Your task to perform on an android device: delete location history Image 0: 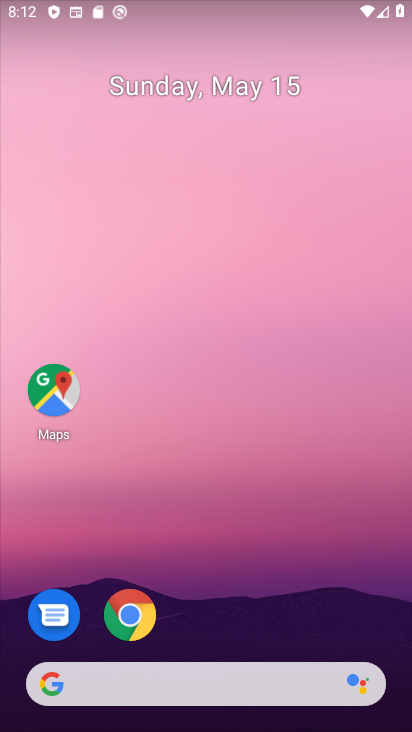
Step 0: click (129, 612)
Your task to perform on an android device: delete location history Image 1: 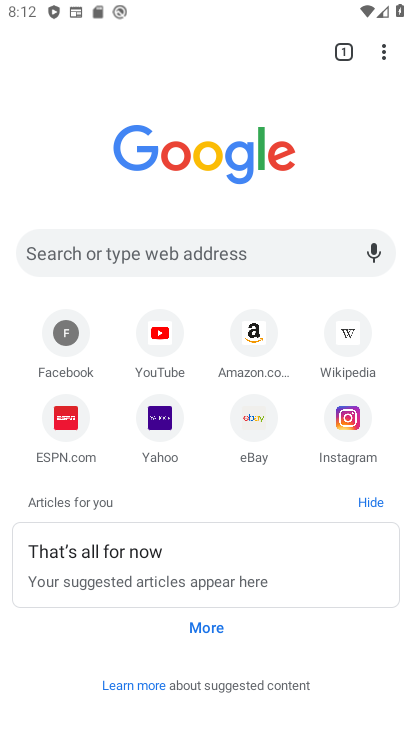
Step 1: press home button
Your task to perform on an android device: delete location history Image 2: 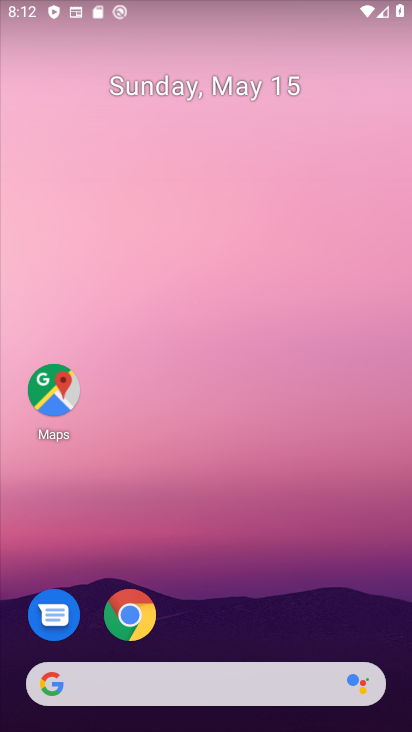
Step 2: drag from (160, 668) to (112, 349)
Your task to perform on an android device: delete location history Image 3: 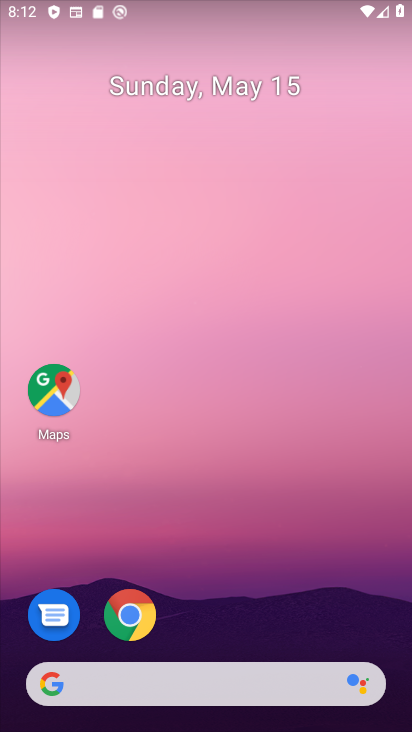
Step 3: drag from (236, 615) to (236, 228)
Your task to perform on an android device: delete location history Image 4: 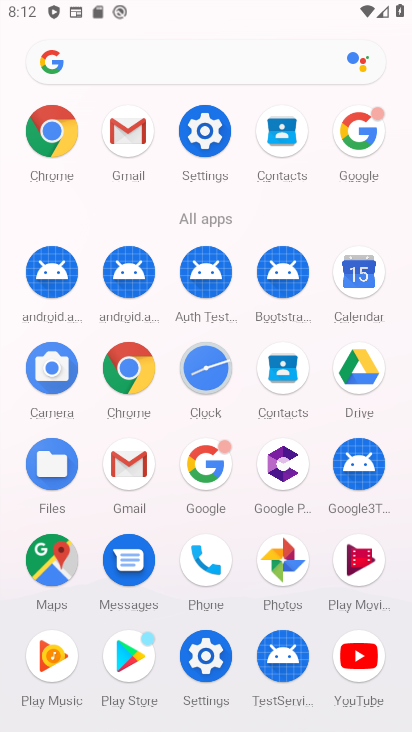
Step 4: click (206, 135)
Your task to perform on an android device: delete location history Image 5: 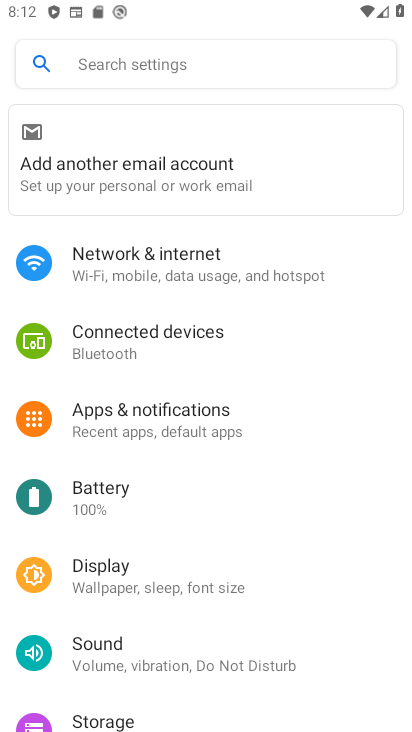
Step 5: drag from (157, 629) to (214, 334)
Your task to perform on an android device: delete location history Image 6: 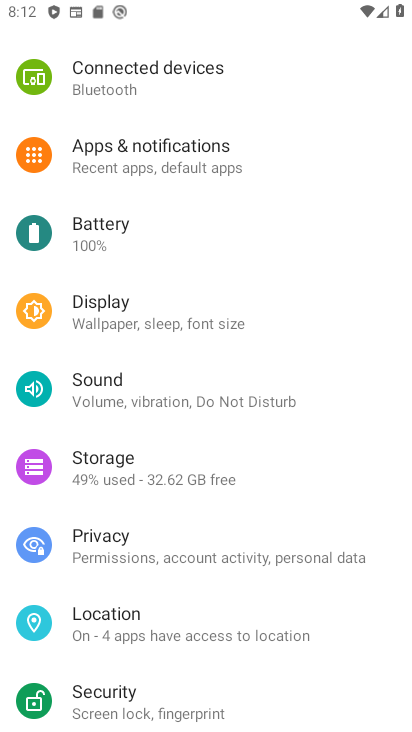
Step 6: click (167, 637)
Your task to perform on an android device: delete location history Image 7: 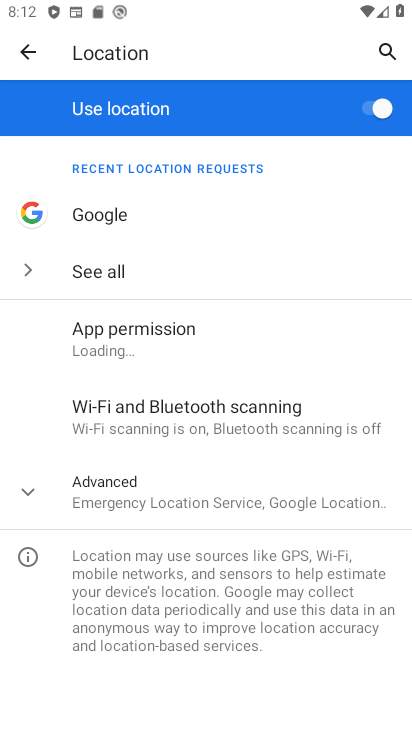
Step 7: click (113, 500)
Your task to perform on an android device: delete location history Image 8: 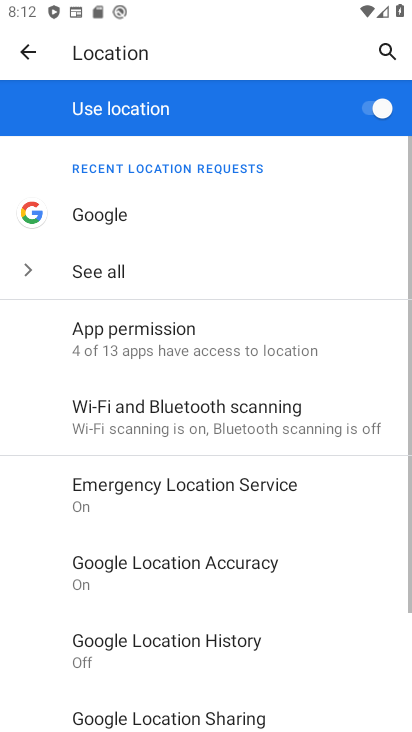
Step 8: click (175, 649)
Your task to perform on an android device: delete location history Image 9: 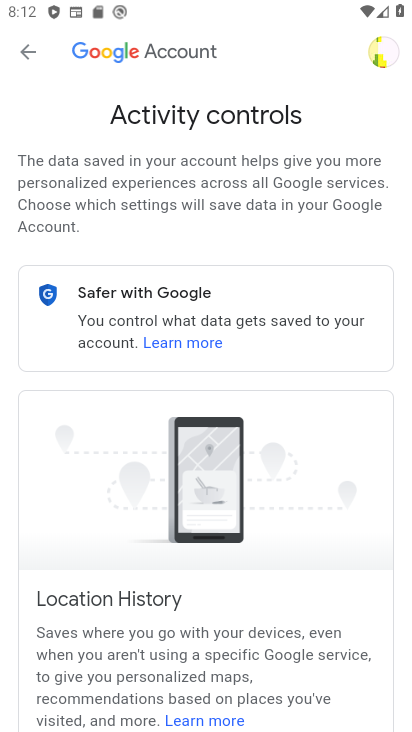
Step 9: drag from (160, 651) to (175, 309)
Your task to perform on an android device: delete location history Image 10: 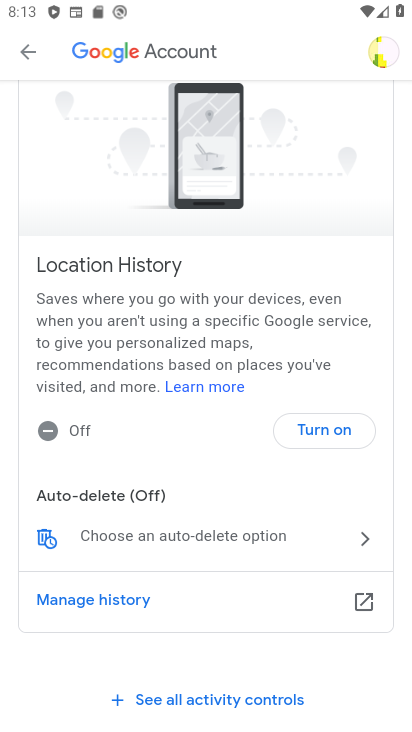
Step 10: click (111, 541)
Your task to perform on an android device: delete location history Image 11: 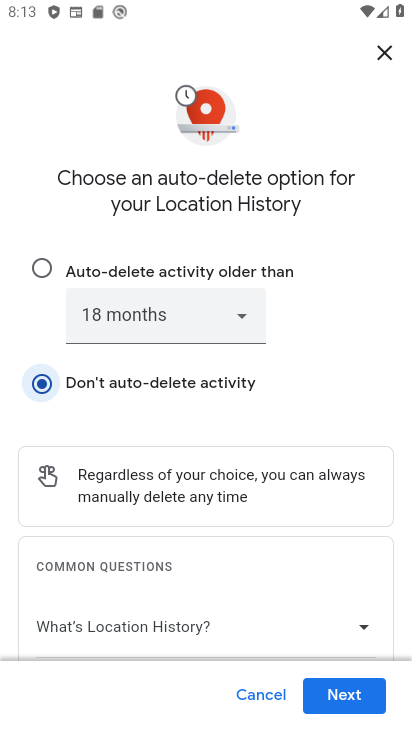
Step 11: click (363, 679)
Your task to perform on an android device: delete location history Image 12: 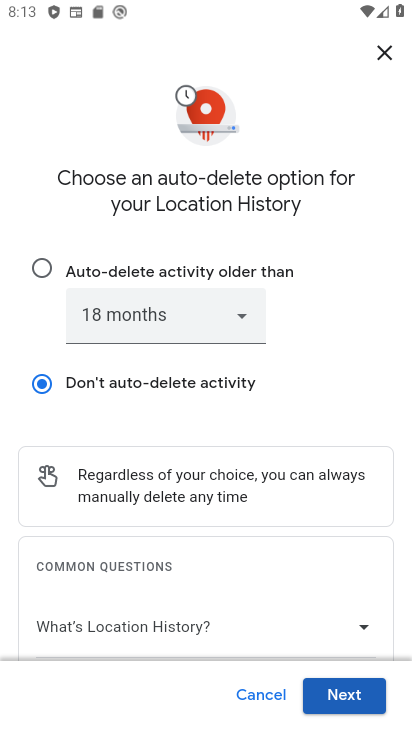
Step 12: click (351, 699)
Your task to perform on an android device: delete location history Image 13: 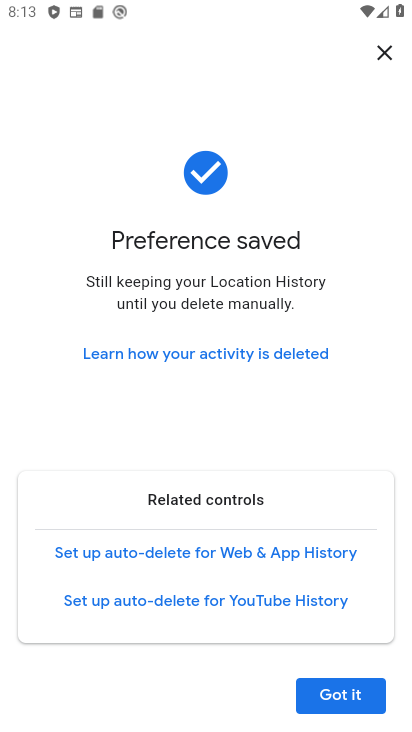
Step 13: click (349, 704)
Your task to perform on an android device: delete location history Image 14: 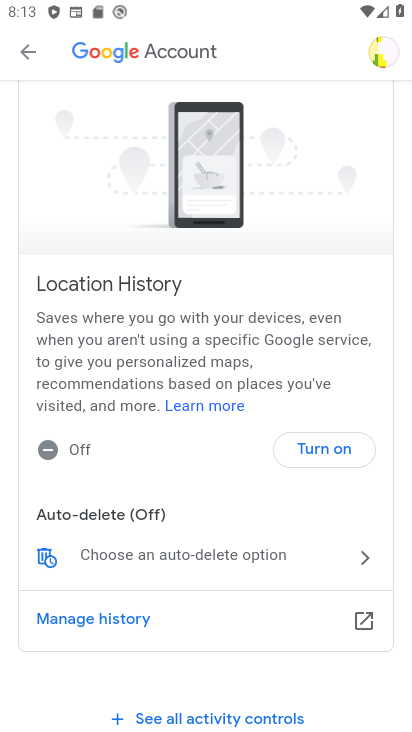
Step 14: task complete